Your task to perform on an android device: set the stopwatch Image 0: 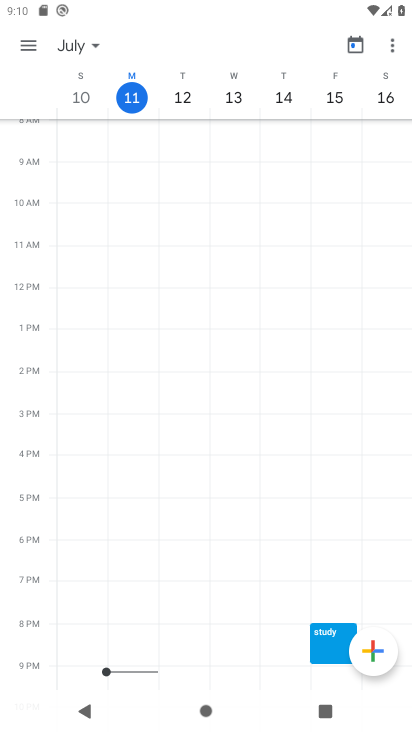
Step 0: press home button
Your task to perform on an android device: set the stopwatch Image 1: 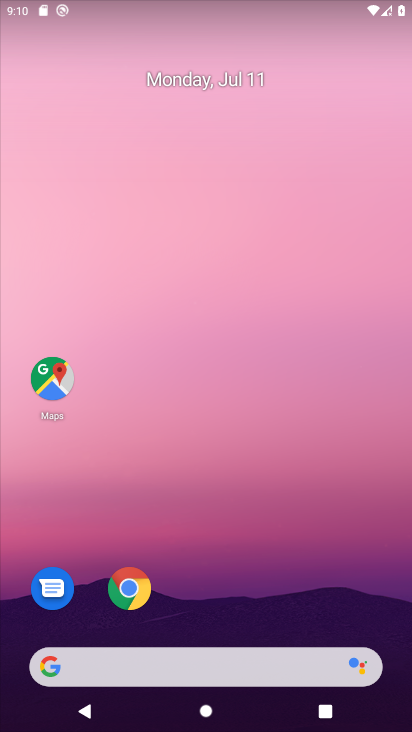
Step 1: drag from (172, 624) to (176, 78)
Your task to perform on an android device: set the stopwatch Image 2: 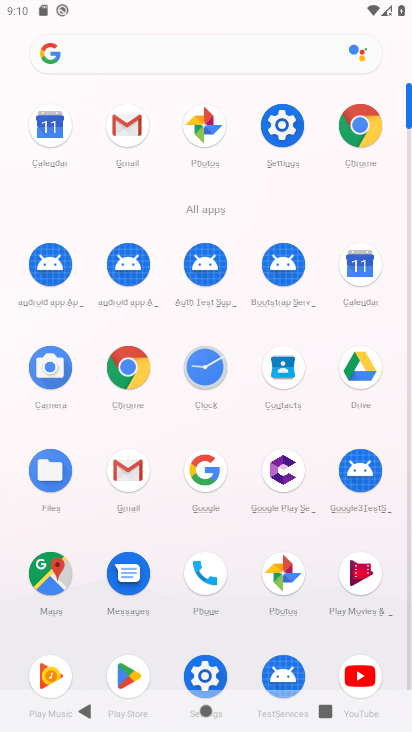
Step 2: click (202, 365)
Your task to perform on an android device: set the stopwatch Image 3: 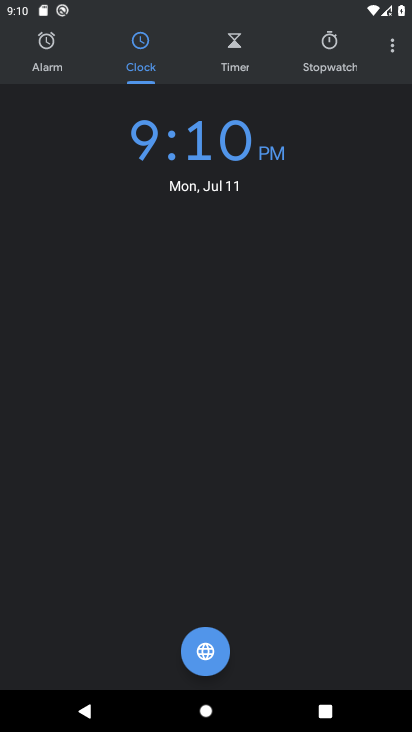
Step 3: click (312, 53)
Your task to perform on an android device: set the stopwatch Image 4: 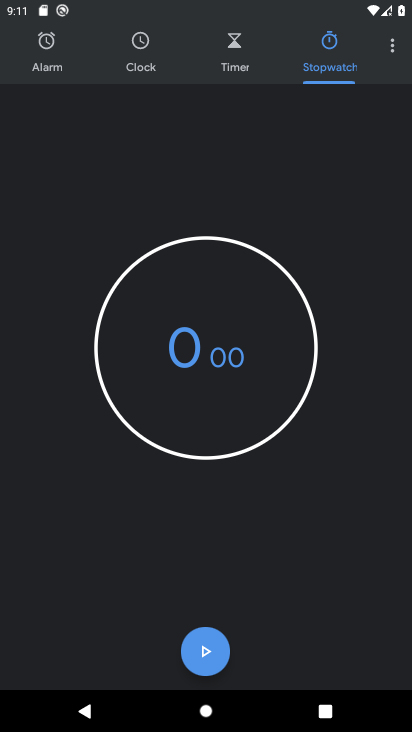
Step 4: task complete